Your task to perform on an android device: Is it going to rain tomorrow? Image 0: 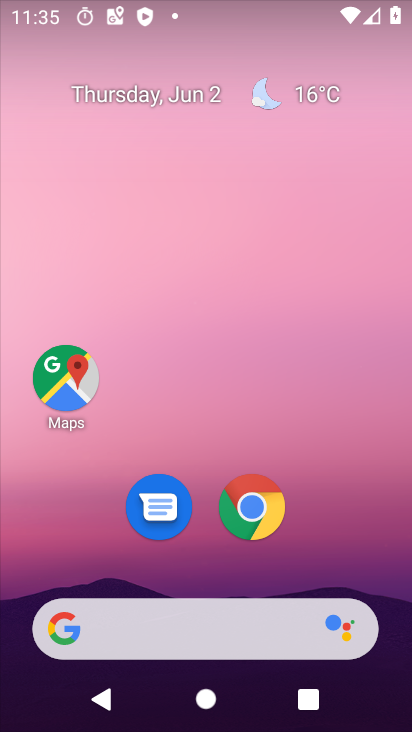
Step 0: drag from (396, 621) to (311, 116)
Your task to perform on an android device: Is it going to rain tomorrow? Image 1: 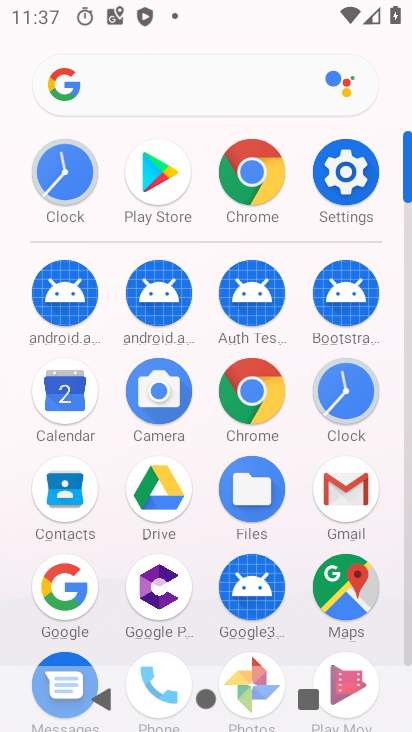
Step 1: click (74, 582)
Your task to perform on an android device: Is it going to rain tomorrow? Image 2: 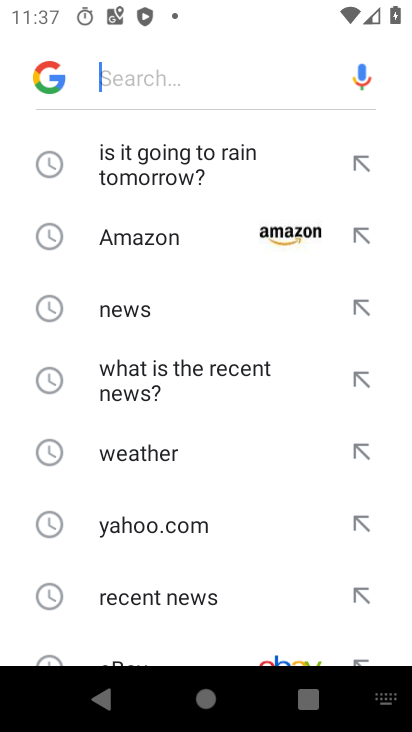
Step 2: drag from (167, 606) to (224, 399)
Your task to perform on an android device: Is it going to rain tomorrow? Image 3: 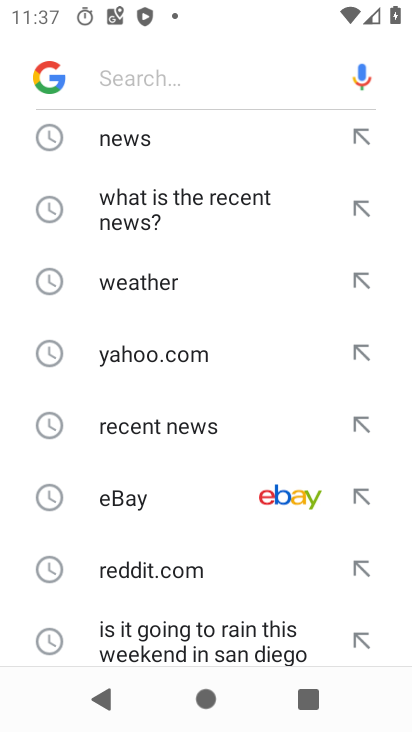
Step 3: drag from (217, 172) to (251, 629)
Your task to perform on an android device: Is it going to rain tomorrow? Image 4: 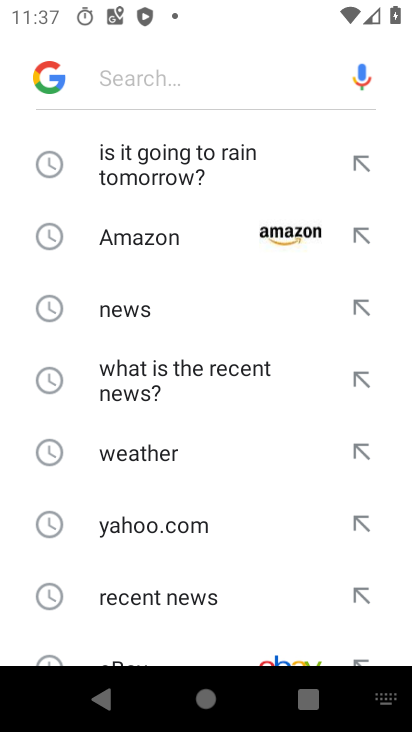
Step 4: click (220, 170)
Your task to perform on an android device: Is it going to rain tomorrow? Image 5: 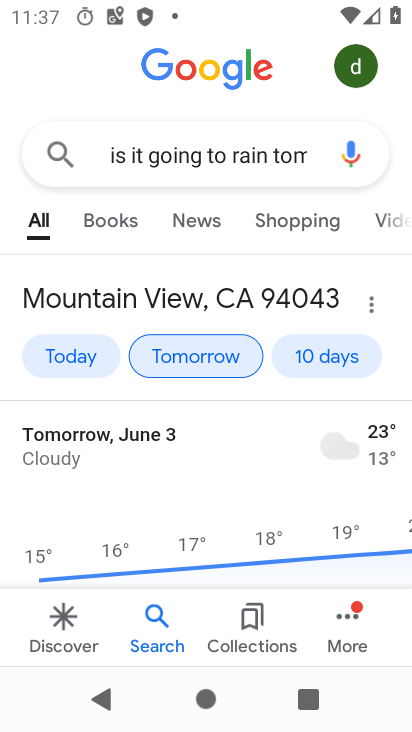
Step 5: task complete